Your task to perform on an android device: Open Google Chrome Image 0: 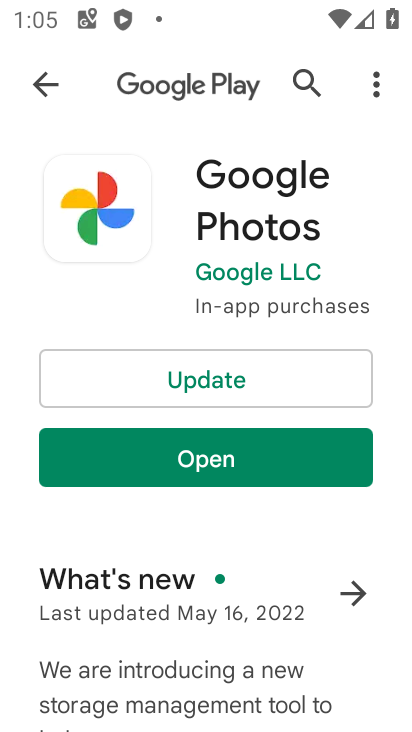
Step 0: press home button
Your task to perform on an android device: Open Google Chrome Image 1: 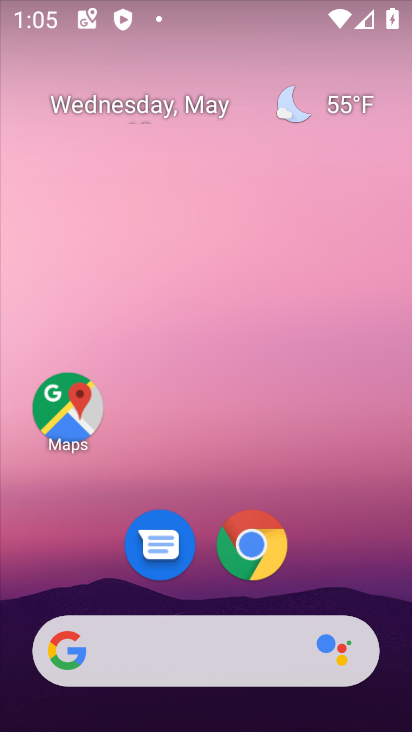
Step 1: click (282, 548)
Your task to perform on an android device: Open Google Chrome Image 2: 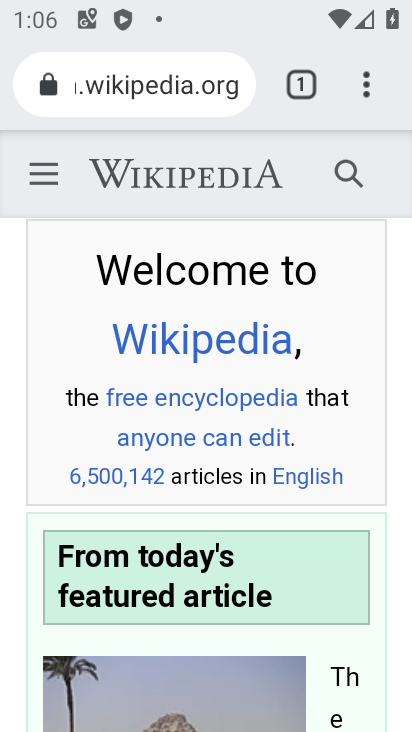
Step 2: task complete